Your task to perform on an android device: What's on my calendar today? Image 0: 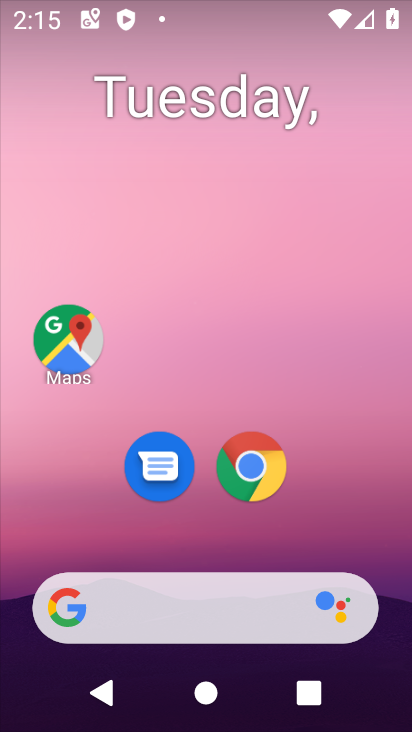
Step 0: drag from (358, 531) to (335, 62)
Your task to perform on an android device: What's on my calendar today? Image 1: 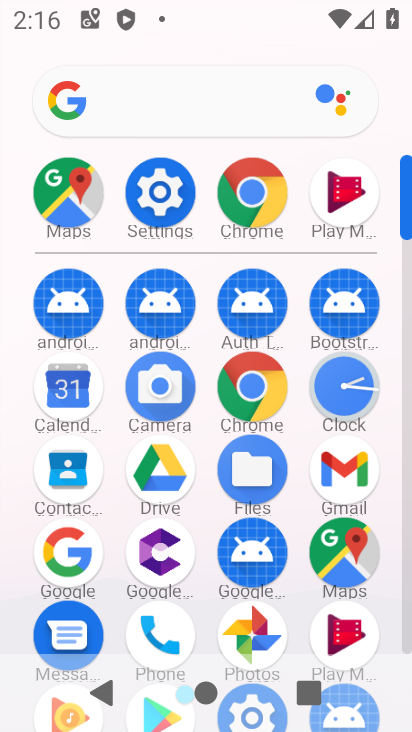
Step 1: click (42, 408)
Your task to perform on an android device: What's on my calendar today? Image 2: 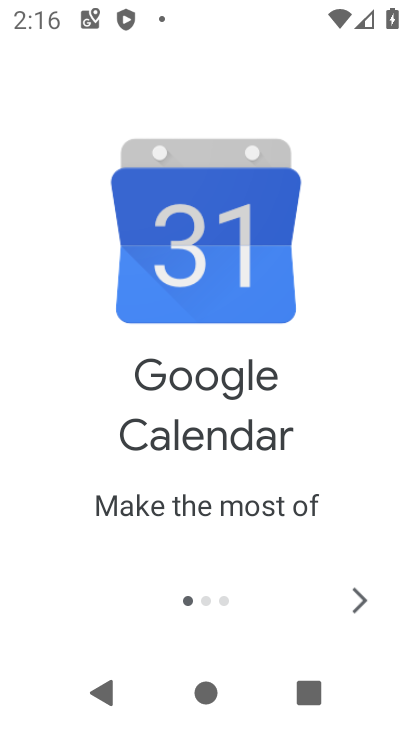
Step 2: click (375, 611)
Your task to perform on an android device: What's on my calendar today? Image 3: 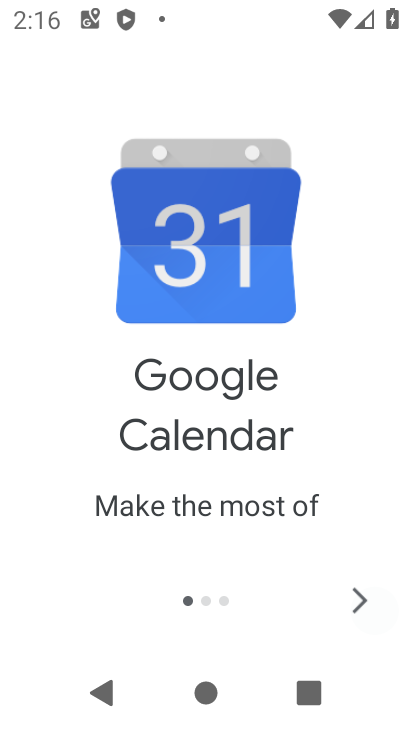
Step 3: click (375, 611)
Your task to perform on an android device: What's on my calendar today? Image 4: 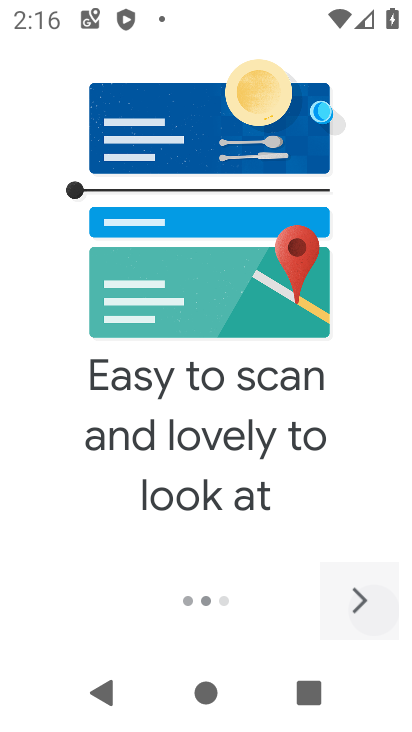
Step 4: click (375, 611)
Your task to perform on an android device: What's on my calendar today? Image 5: 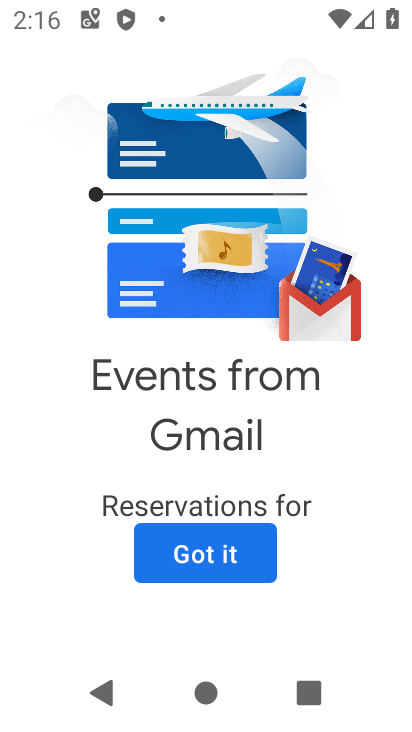
Step 5: click (225, 594)
Your task to perform on an android device: What's on my calendar today? Image 6: 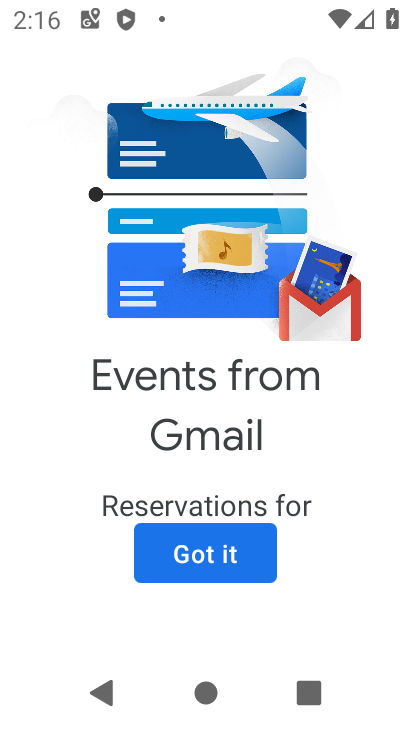
Step 6: click (243, 569)
Your task to perform on an android device: What's on my calendar today? Image 7: 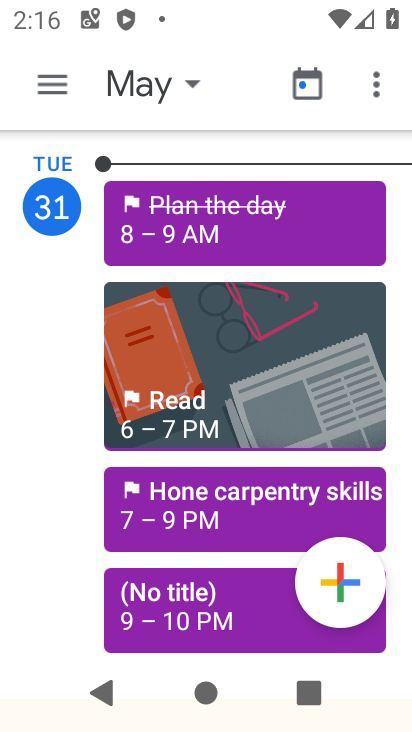
Step 7: task complete